Your task to perform on an android device: install app "Pinterest" Image 0: 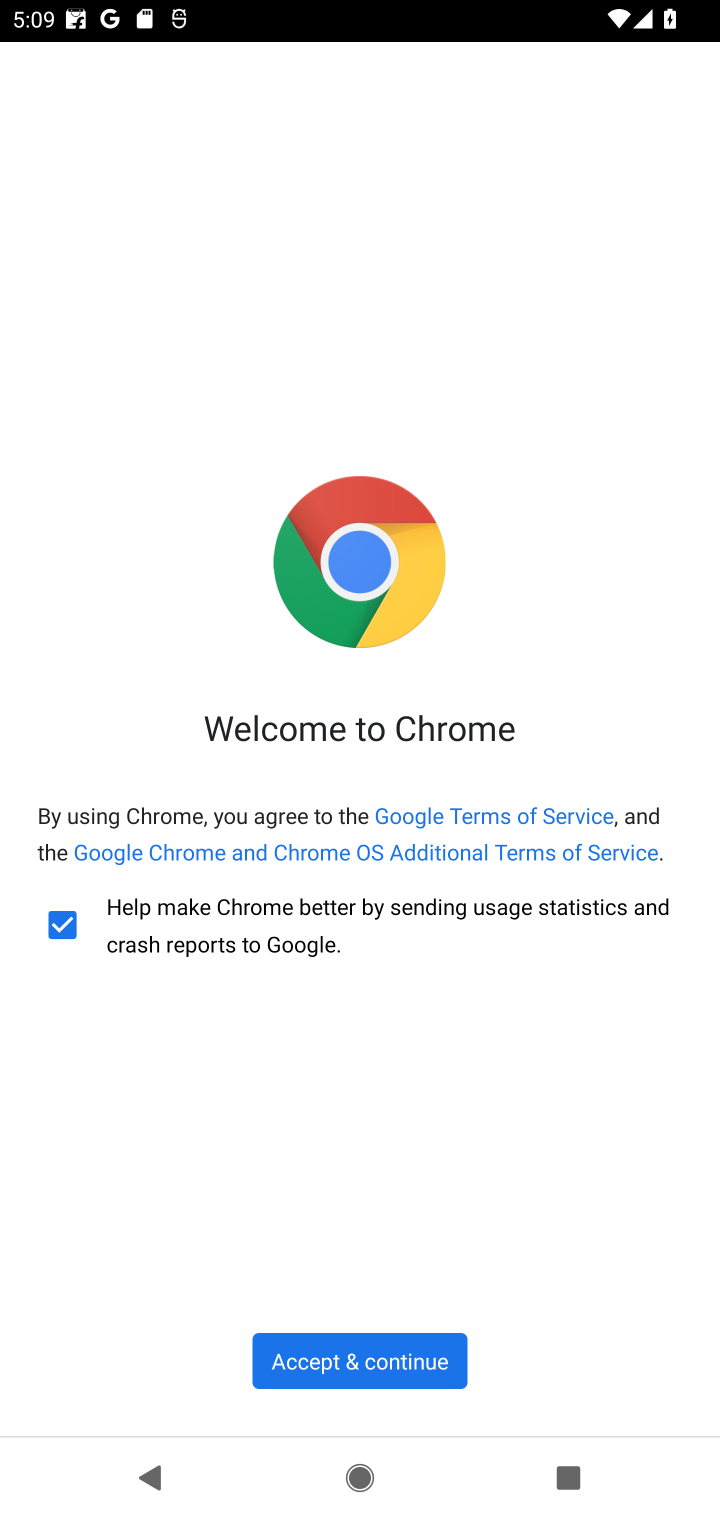
Step 0: press home button
Your task to perform on an android device: install app "Pinterest" Image 1: 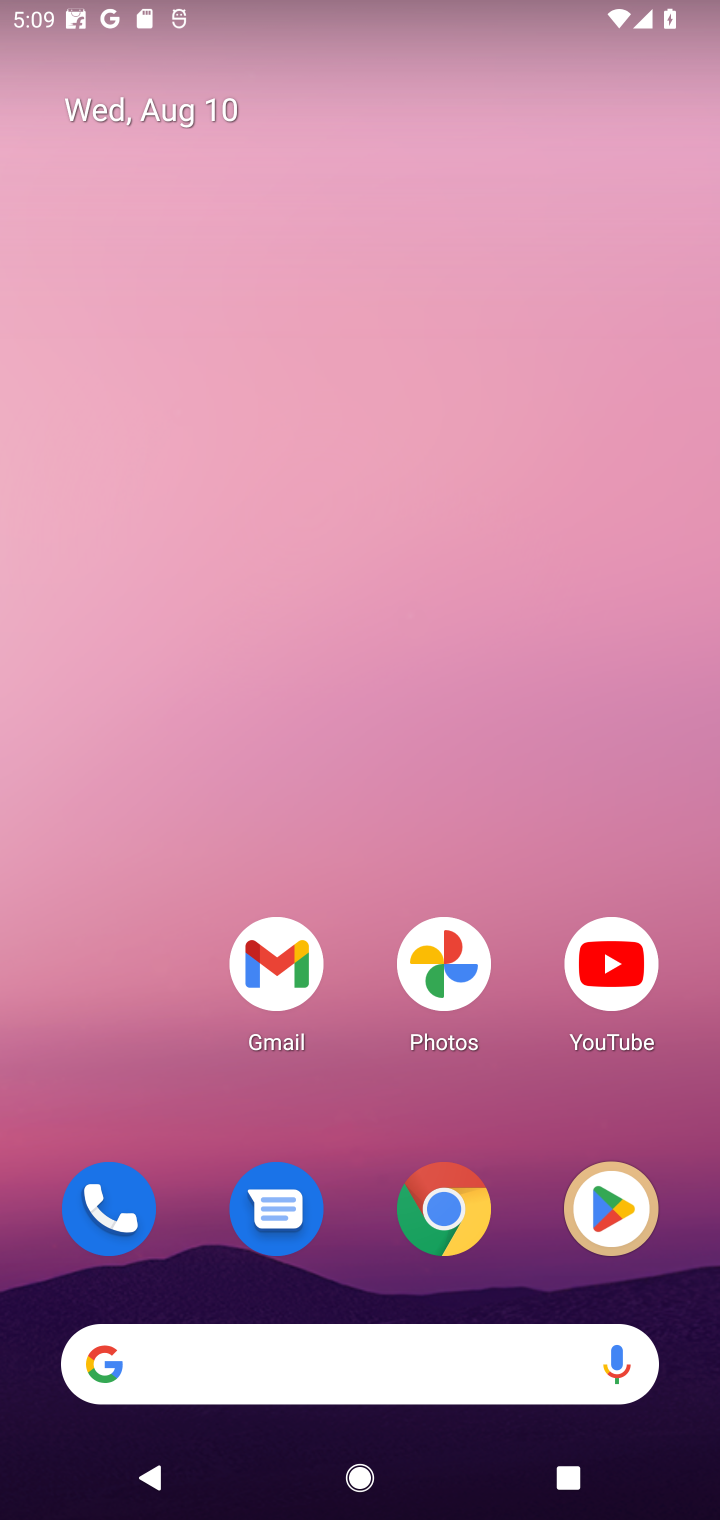
Step 1: click (613, 1222)
Your task to perform on an android device: install app "Pinterest" Image 2: 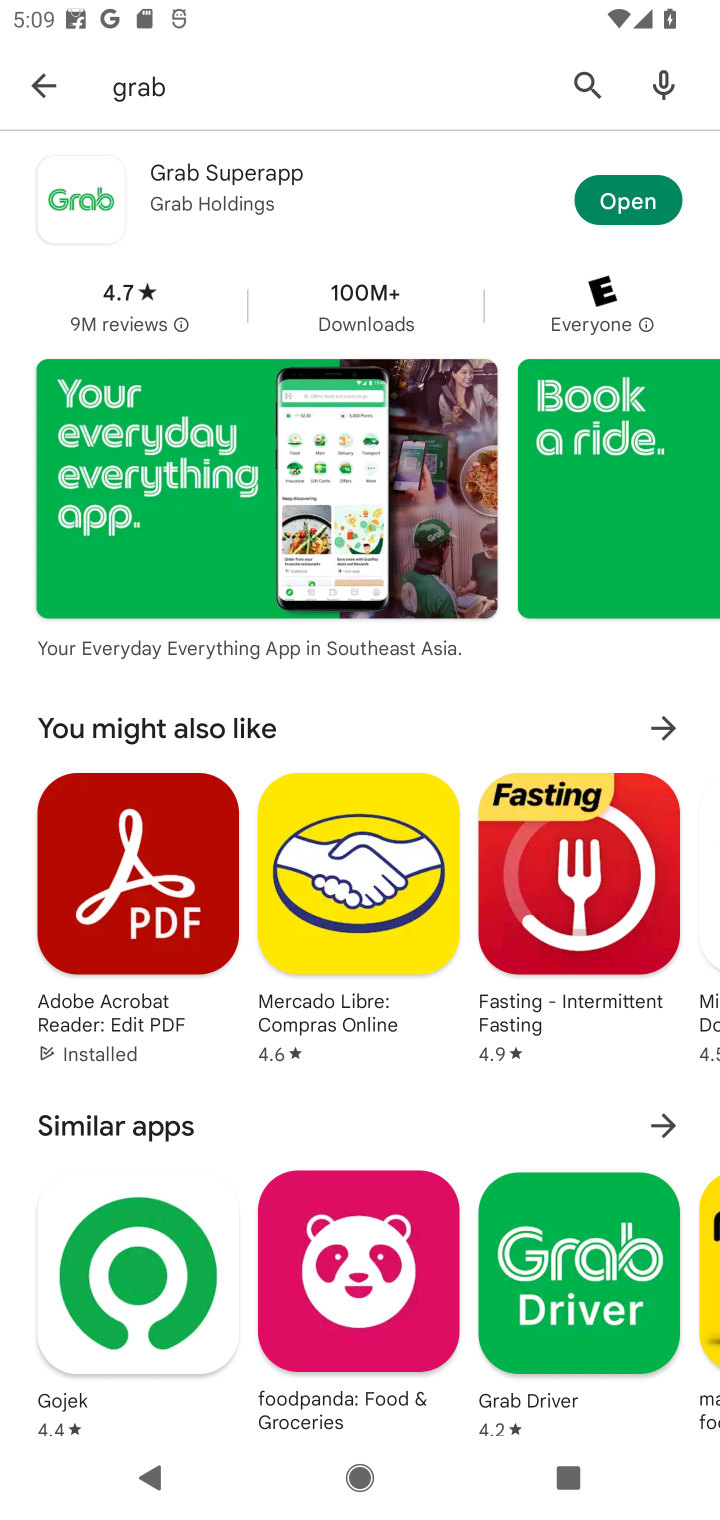
Step 2: click (572, 69)
Your task to perform on an android device: install app "Pinterest" Image 3: 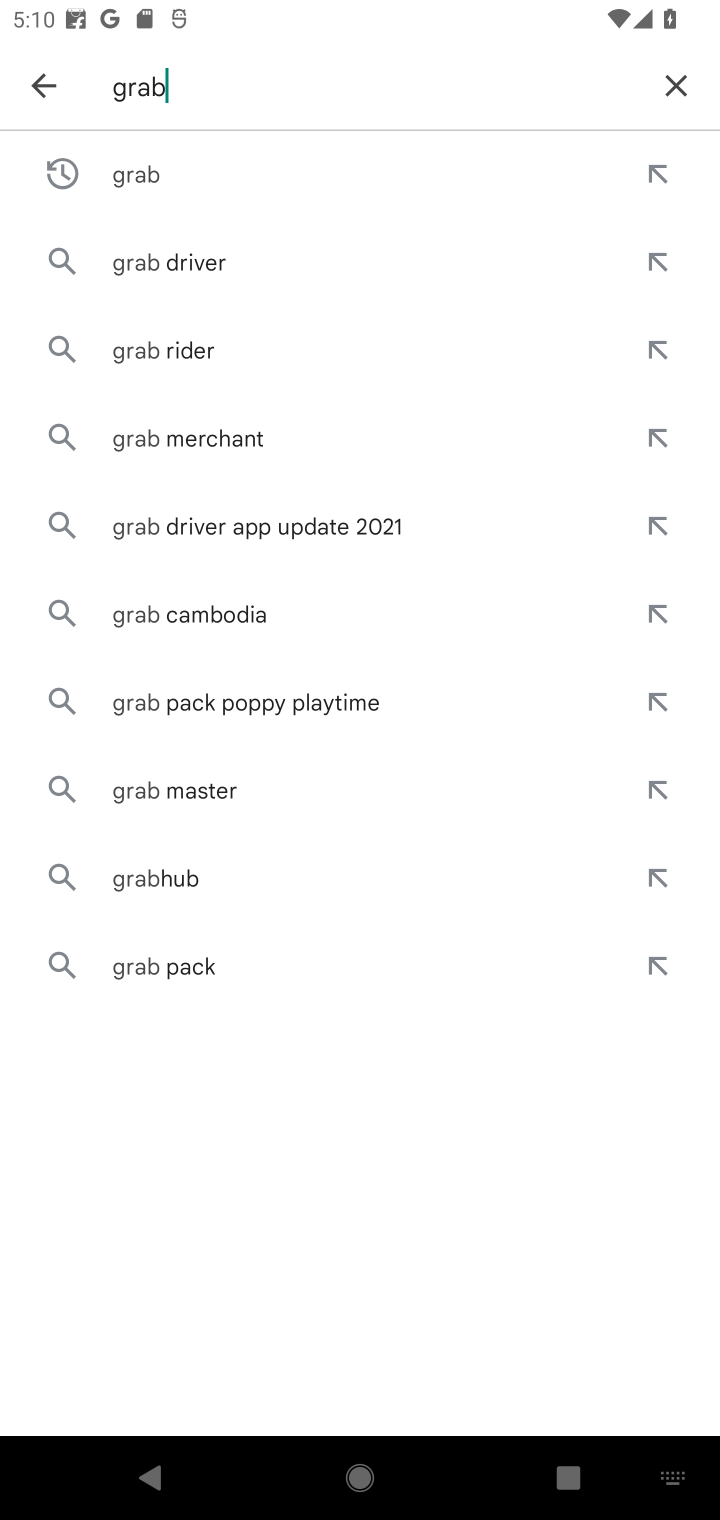
Step 3: click (692, 97)
Your task to perform on an android device: install app "Pinterest" Image 4: 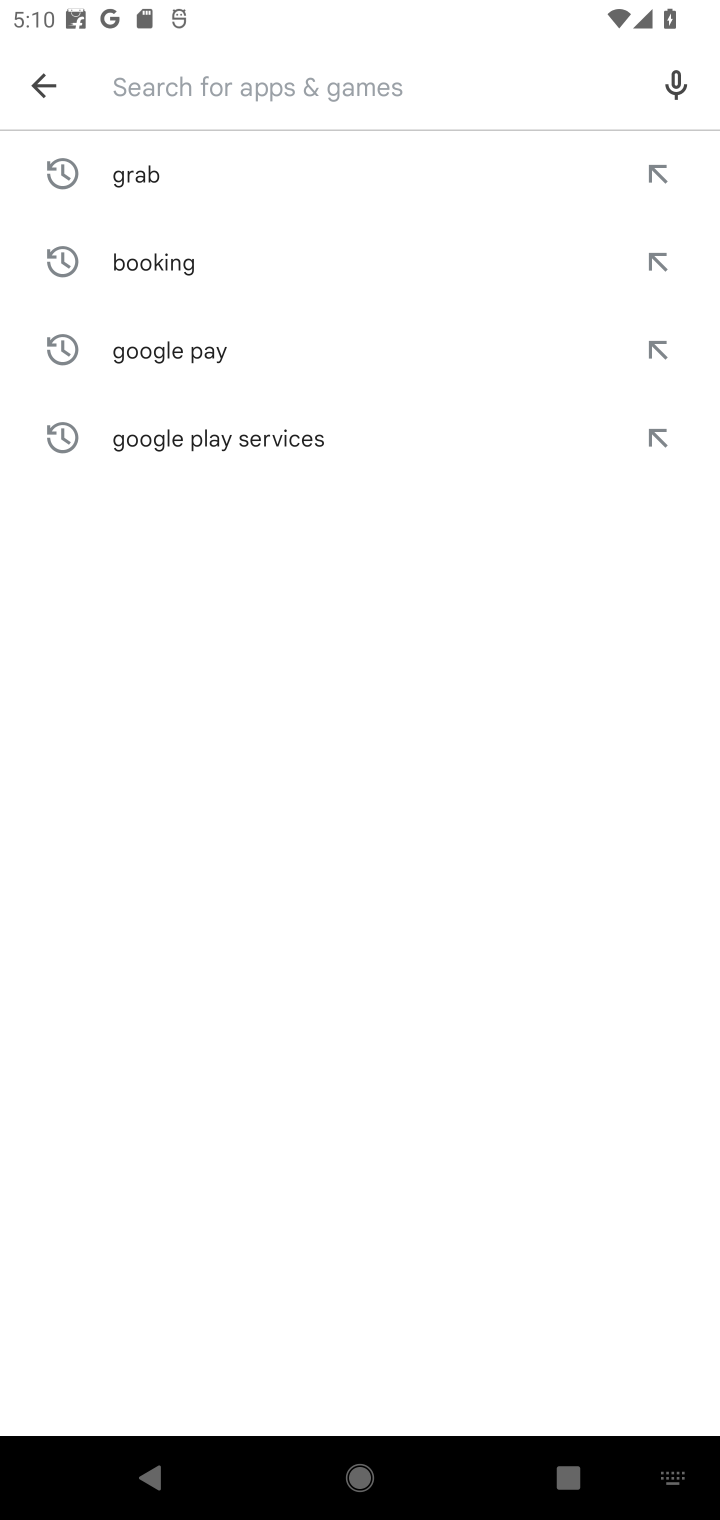
Step 4: type "pintrest"
Your task to perform on an android device: install app "Pinterest" Image 5: 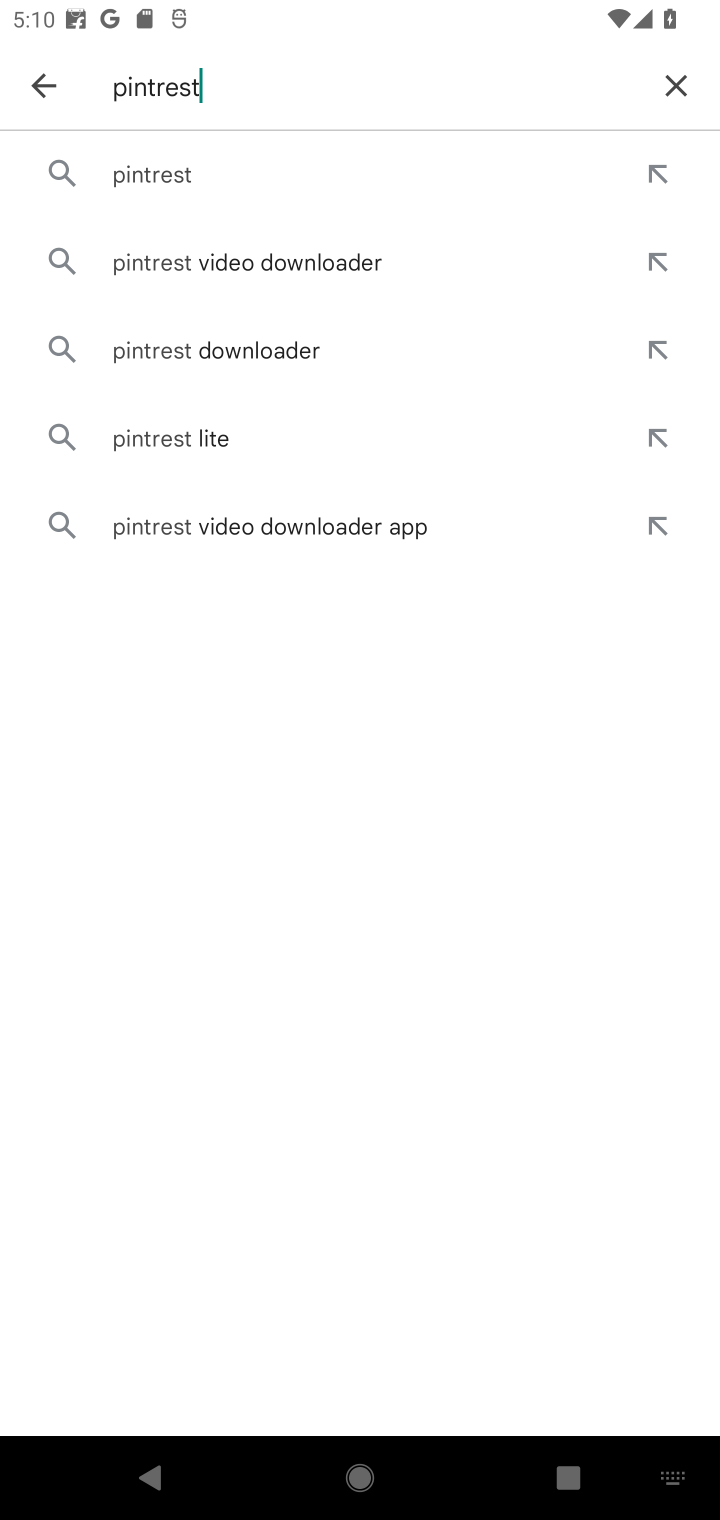
Step 5: click (180, 171)
Your task to perform on an android device: install app "Pinterest" Image 6: 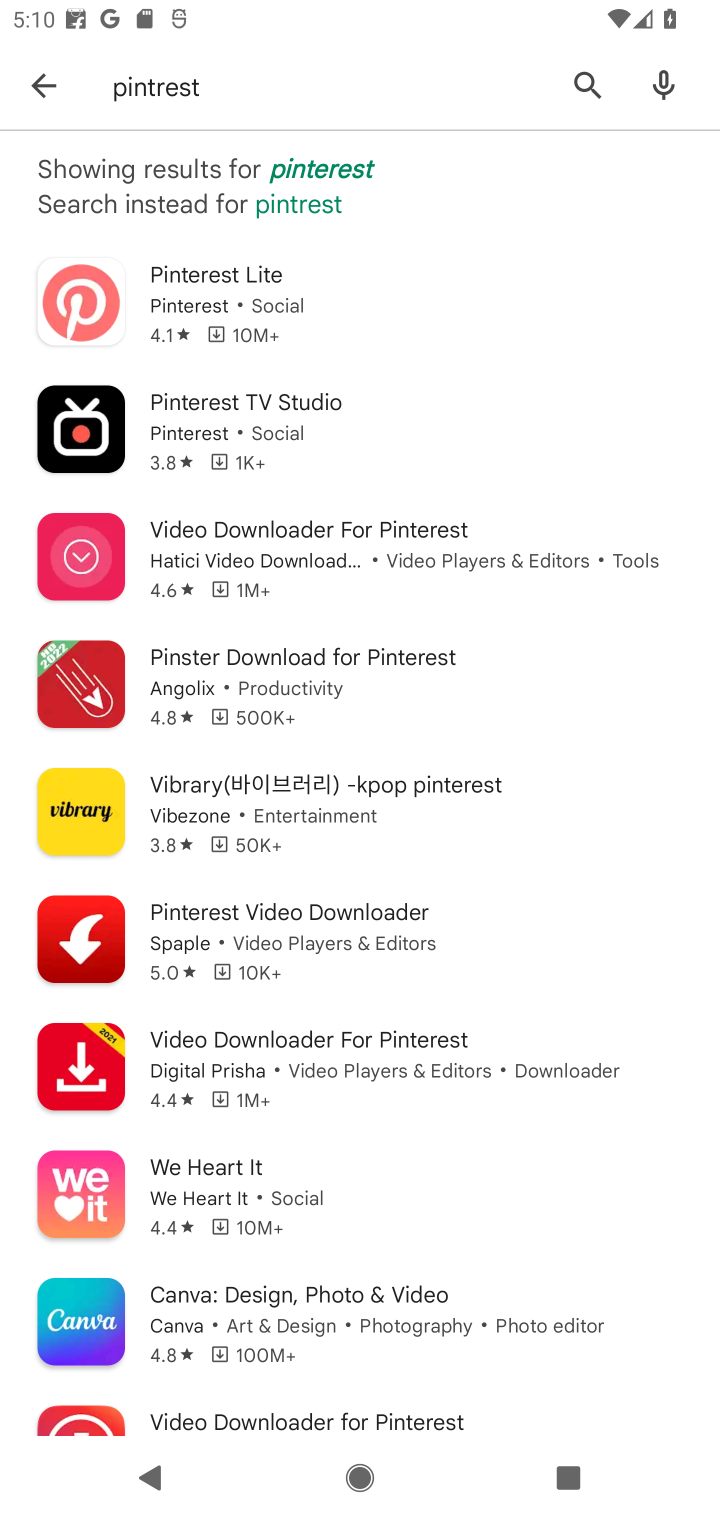
Step 6: click (364, 278)
Your task to perform on an android device: install app "Pinterest" Image 7: 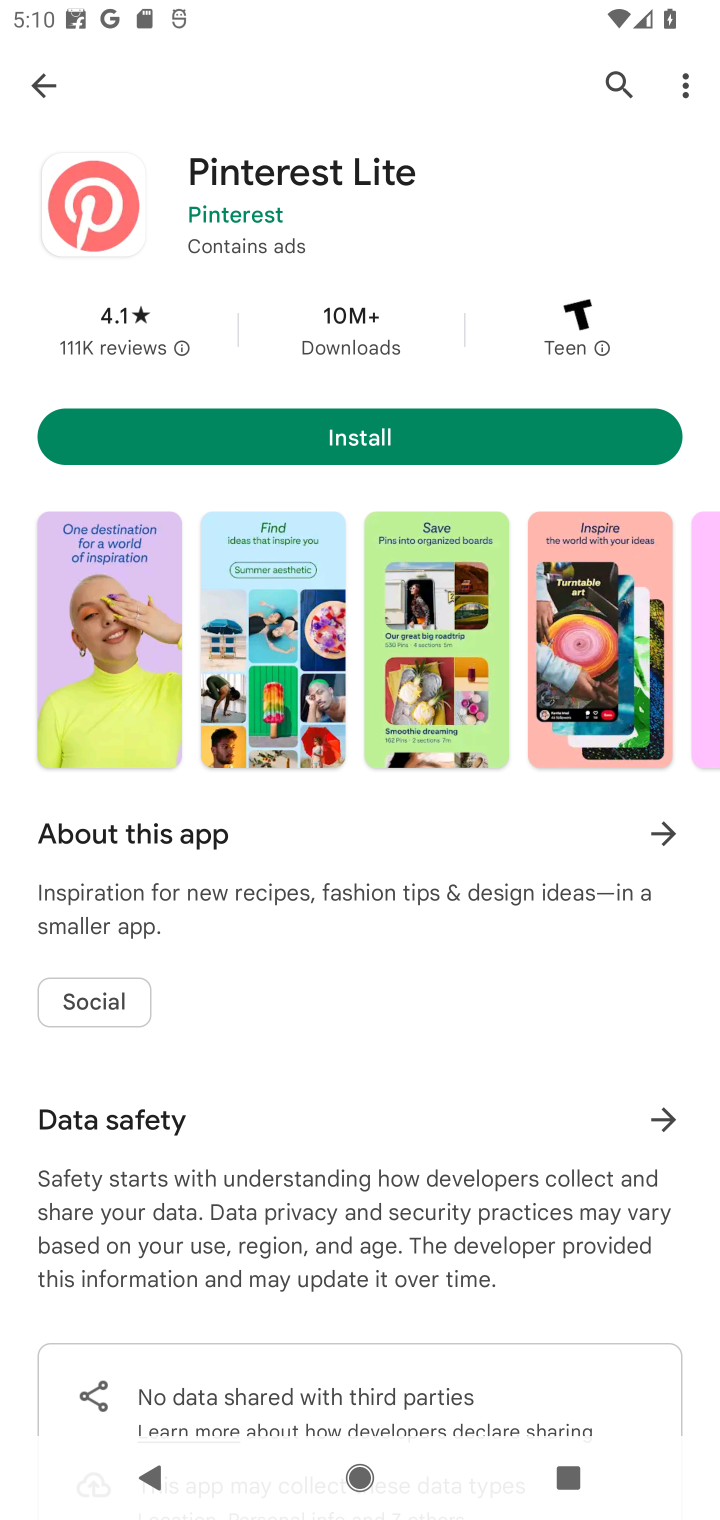
Step 7: click (480, 423)
Your task to perform on an android device: install app "Pinterest" Image 8: 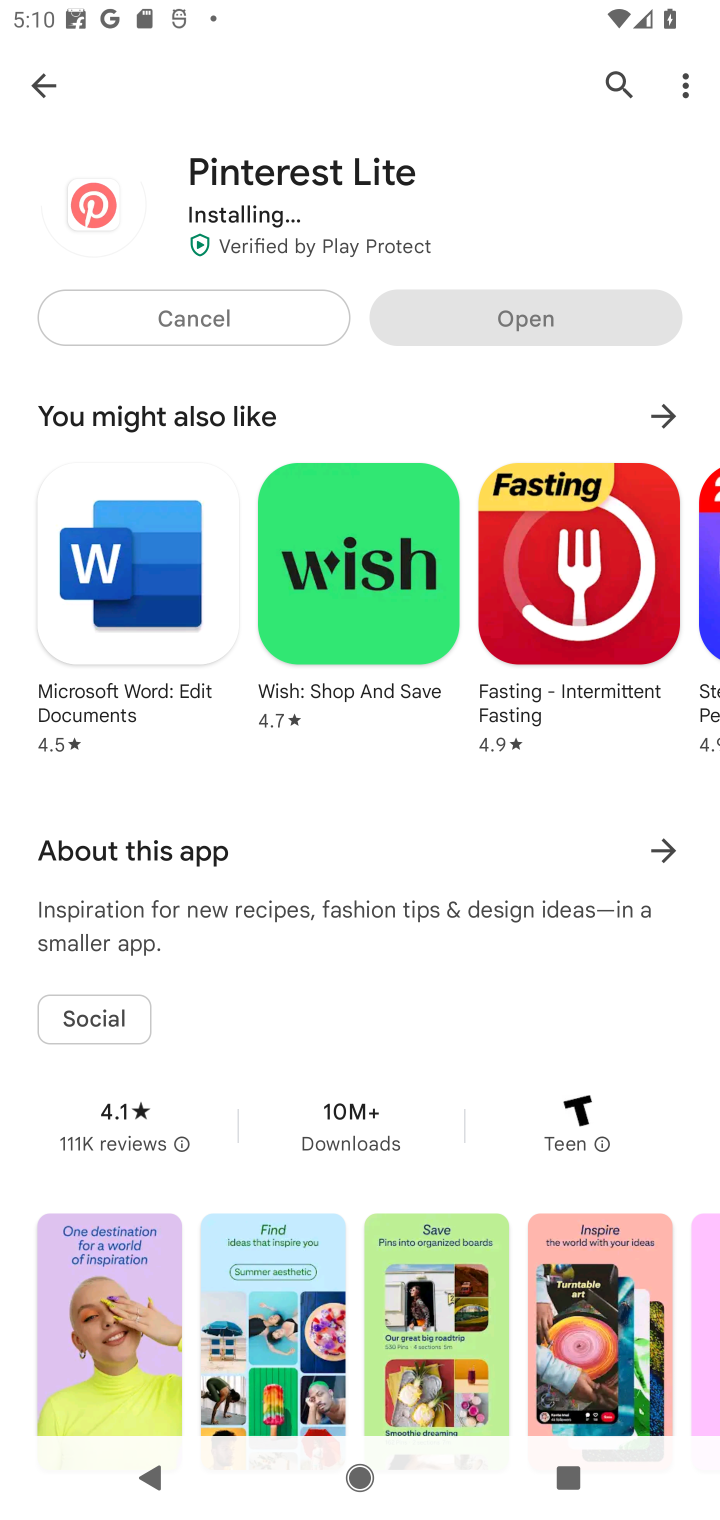
Step 8: task complete